Your task to perform on an android device: change alarm snooze length Image 0: 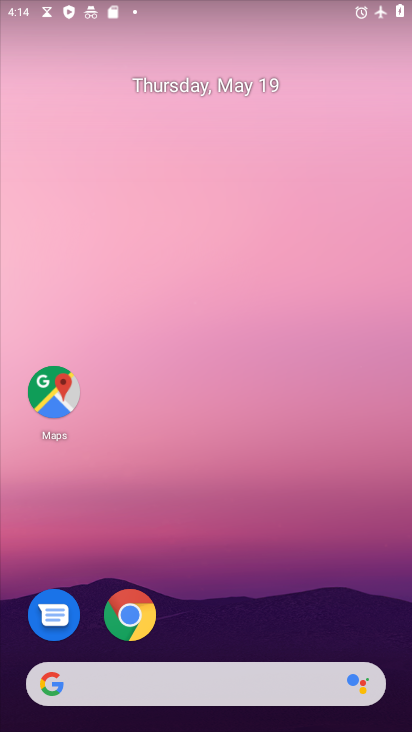
Step 0: drag from (263, 631) to (144, 84)
Your task to perform on an android device: change alarm snooze length Image 1: 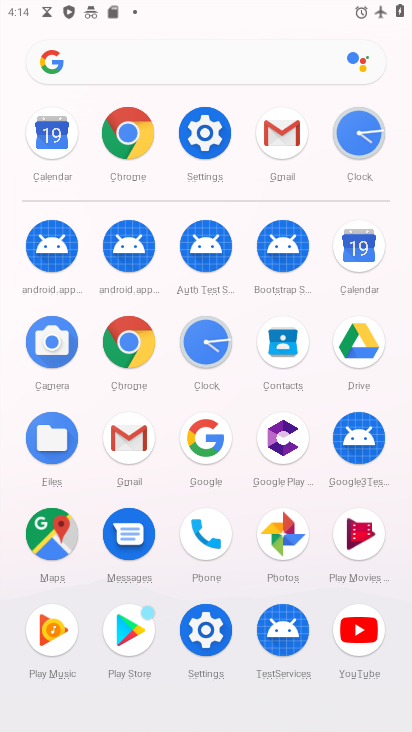
Step 1: click (214, 334)
Your task to perform on an android device: change alarm snooze length Image 2: 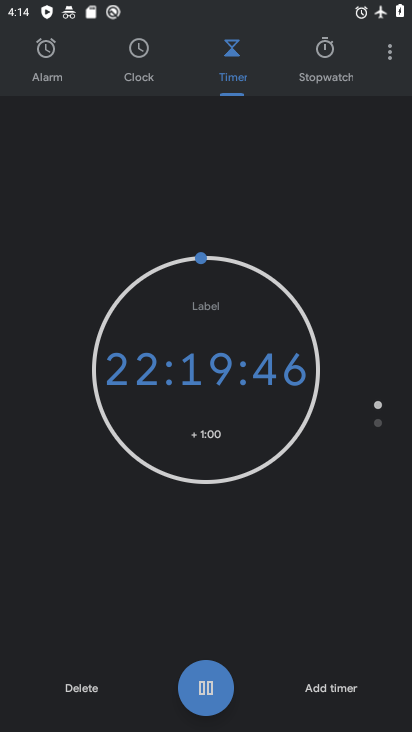
Step 2: click (194, 351)
Your task to perform on an android device: change alarm snooze length Image 3: 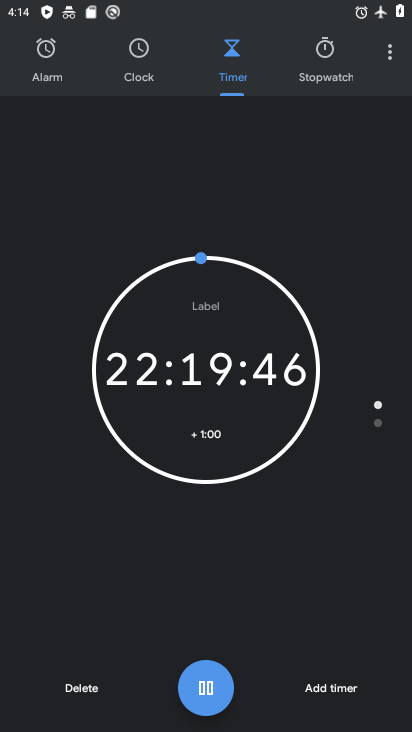
Step 3: click (196, 349)
Your task to perform on an android device: change alarm snooze length Image 4: 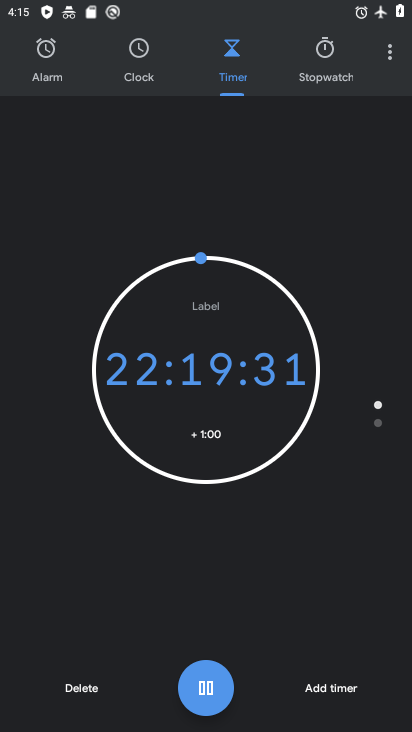
Step 4: click (200, 692)
Your task to perform on an android device: change alarm snooze length Image 5: 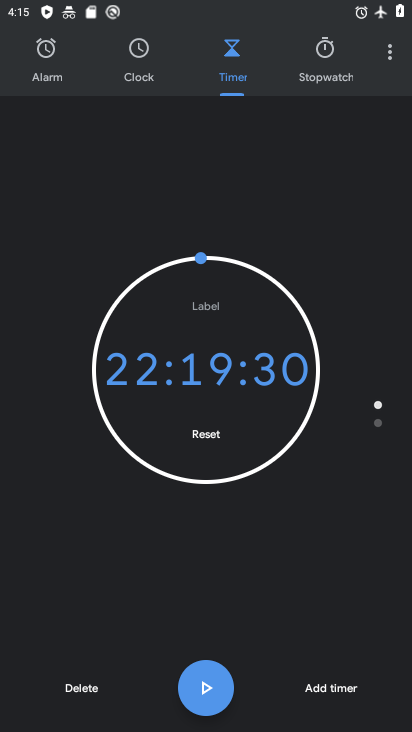
Step 5: click (206, 692)
Your task to perform on an android device: change alarm snooze length Image 6: 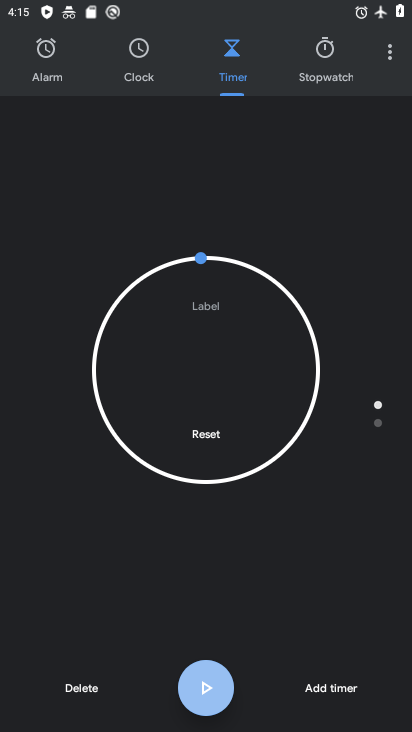
Step 6: click (211, 694)
Your task to perform on an android device: change alarm snooze length Image 7: 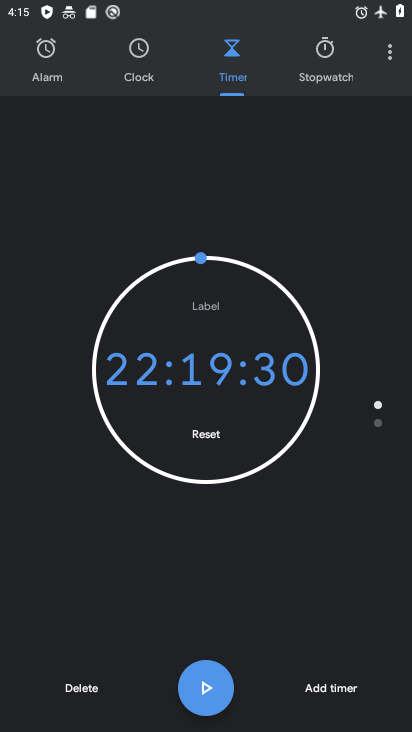
Step 7: click (383, 50)
Your task to perform on an android device: change alarm snooze length Image 8: 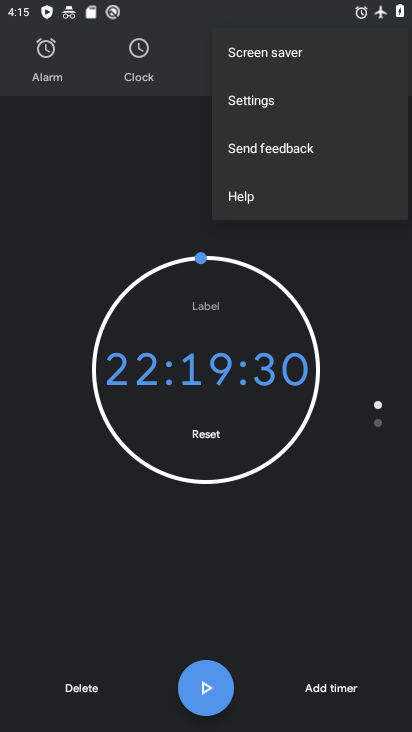
Step 8: click (248, 103)
Your task to perform on an android device: change alarm snooze length Image 9: 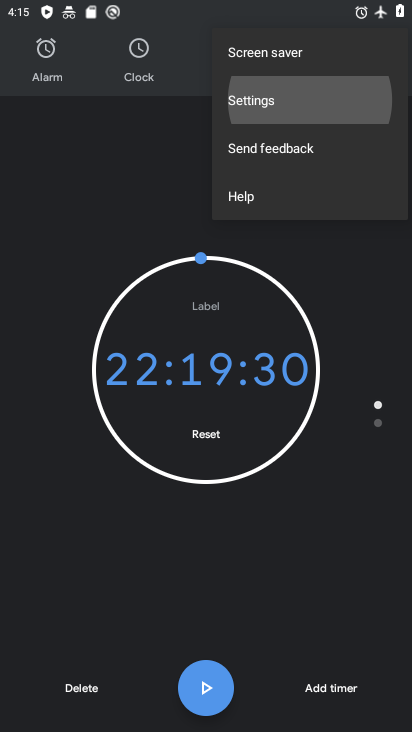
Step 9: click (248, 103)
Your task to perform on an android device: change alarm snooze length Image 10: 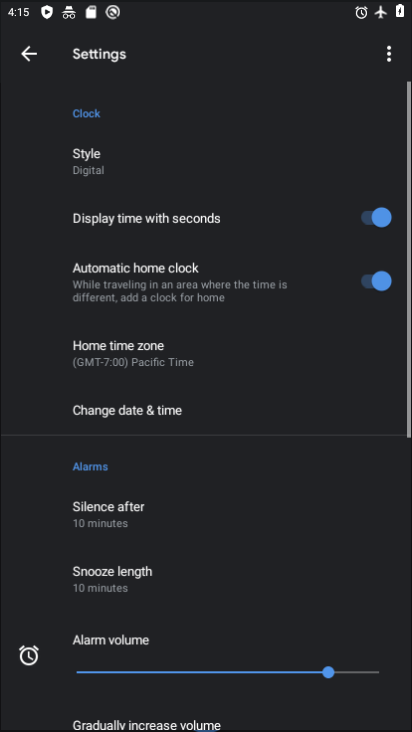
Step 10: click (248, 103)
Your task to perform on an android device: change alarm snooze length Image 11: 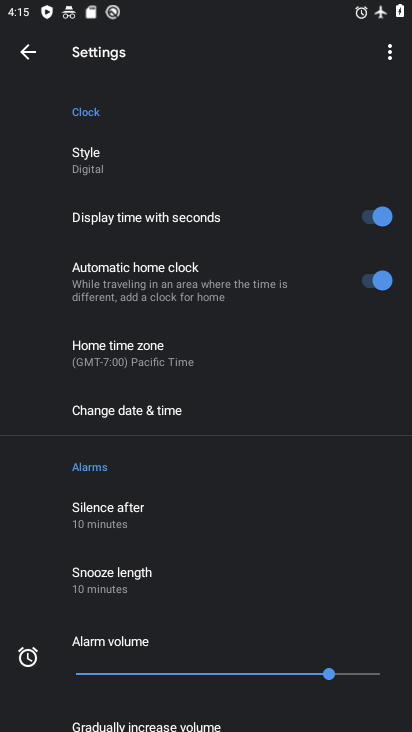
Step 11: click (107, 577)
Your task to perform on an android device: change alarm snooze length Image 12: 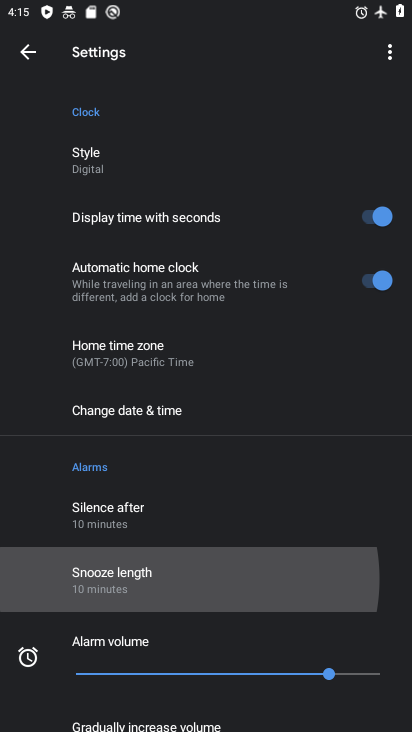
Step 12: click (110, 568)
Your task to perform on an android device: change alarm snooze length Image 13: 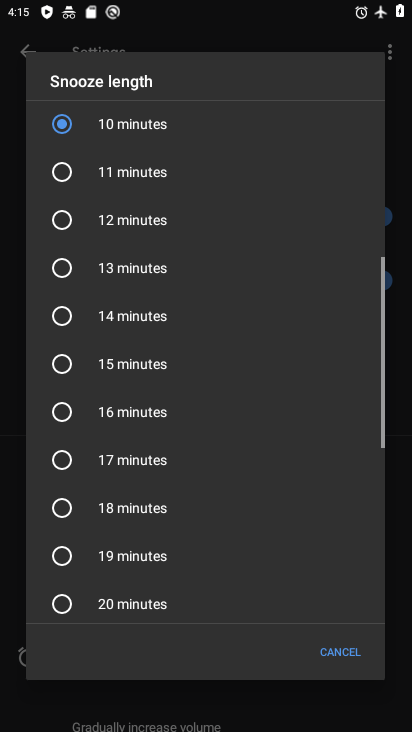
Step 13: click (110, 568)
Your task to perform on an android device: change alarm snooze length Image 14: 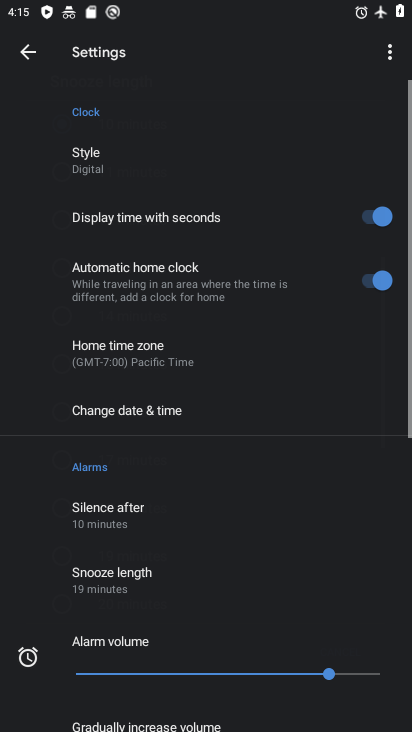
Step 14: click (110, 568)
Your task to perform on an android device: change alarm snooze length Image 15: 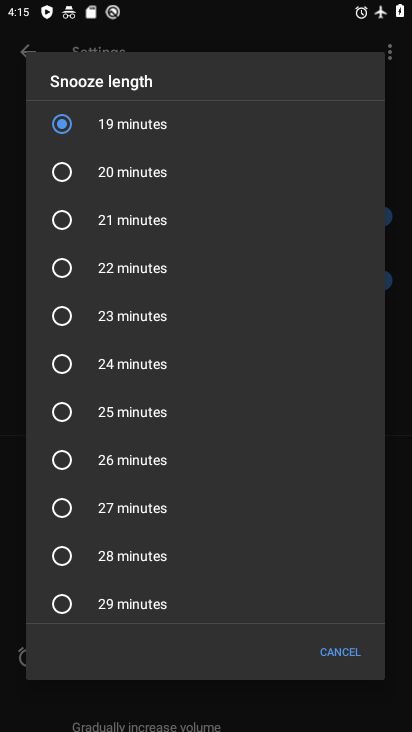
Step 15: click (64, 270)
Your task to perform on an android device: change alarm snooze length Image 16: 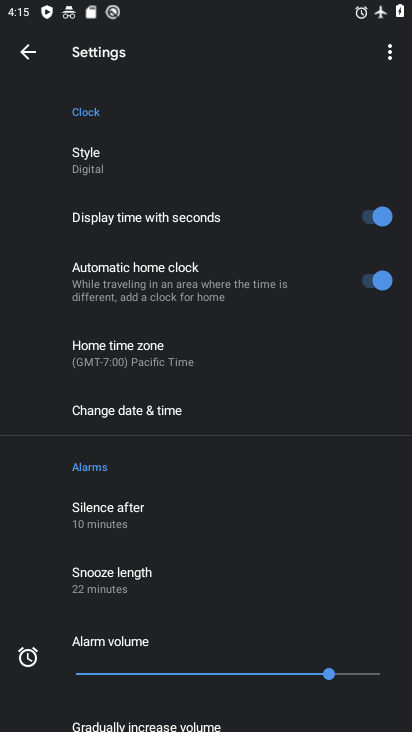
Step 16: press back button
Your task to perform on an android device: change alarm snooze length Image 17: 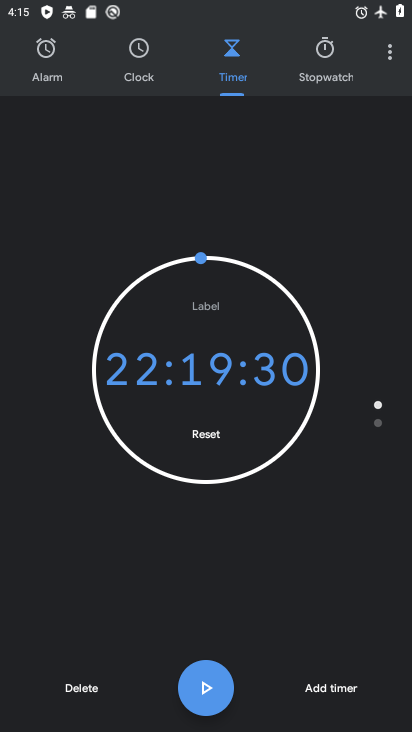
Step 17: click (389, 60)
Your task to perform on an android device: change alarm snooze length Image 18: 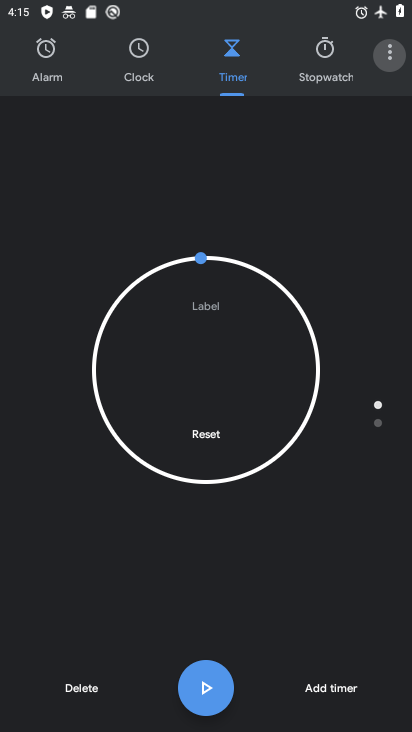
Step 18: click (394, 56)
Your task to perform on an android device: change alarm snooze length Image 19: 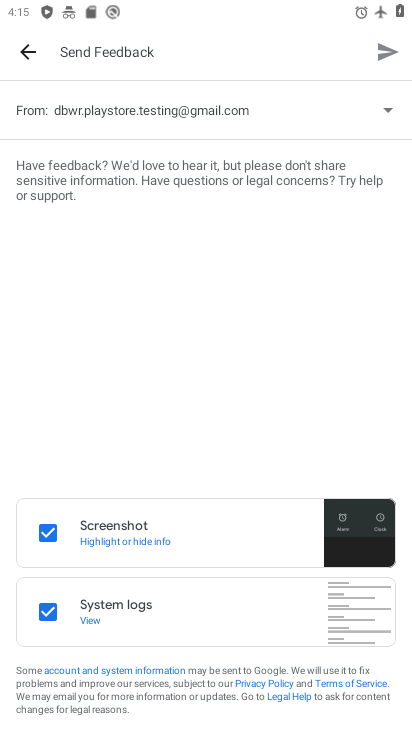
Step 19: click (26, 54)
Your task to perform on an android device: change alarm snooze length Image 20: 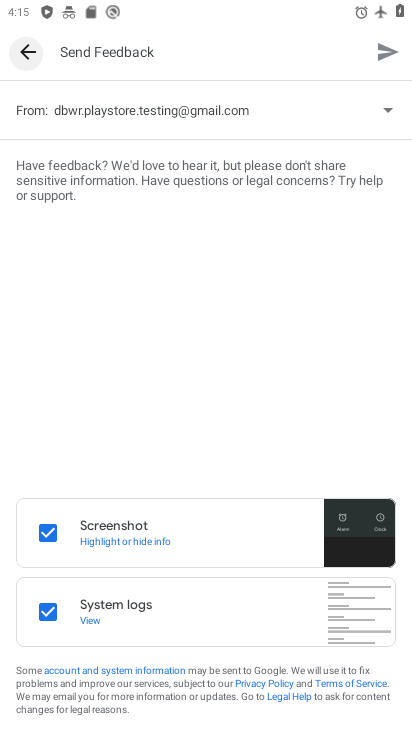
Step 20: click (26, 53)
Your task to perform on an android device: change alarm snooze length Image 21: 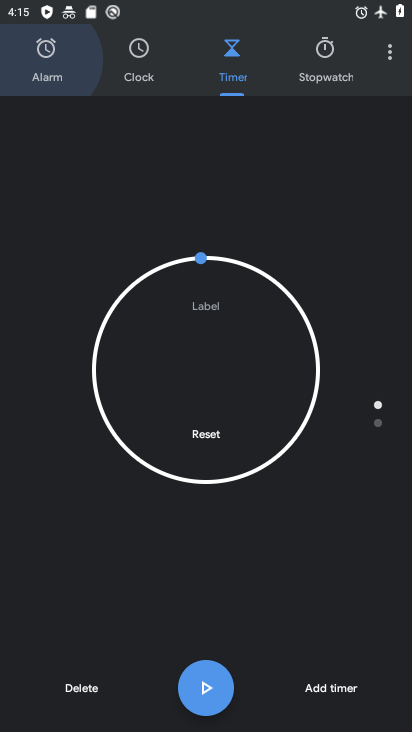
Step 21: click (26, 53)
Your task to perform on an android device: change alarm snooze length Image 22: 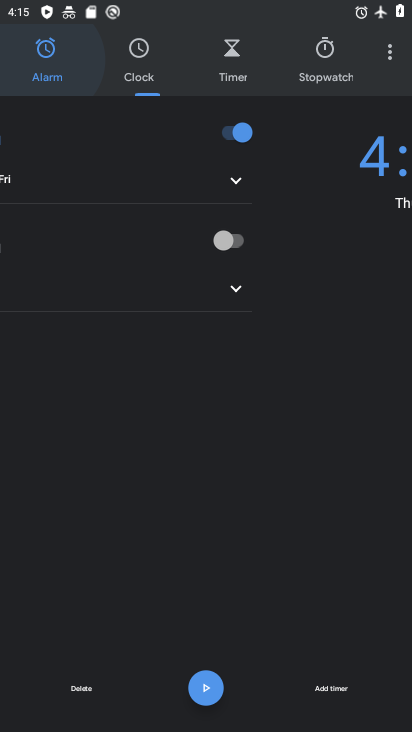
Step 22: click (26, 53)
Your task to perform on an android device: change alarm snooze length Image 23: 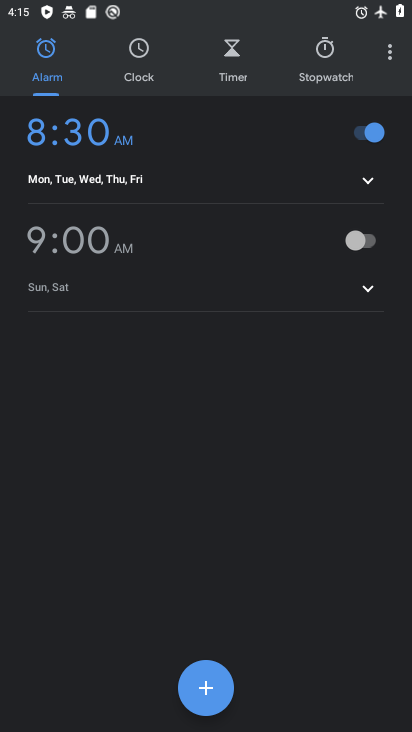
Step 23: click (384, 59)
Your task to perform on an android device: change alarm snooze length Image 24: 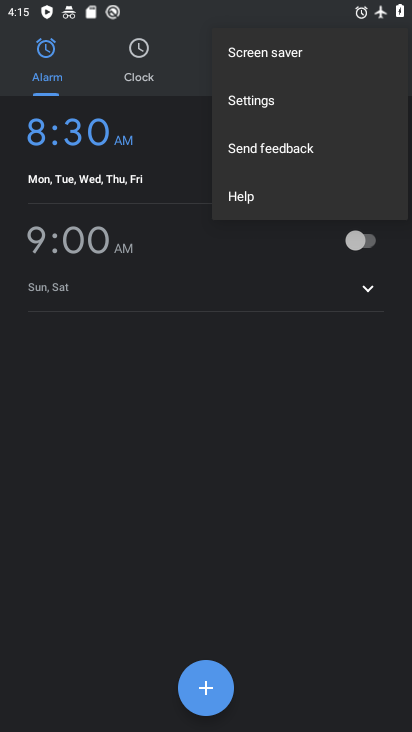
Step 24: click (244, 101)
Your task to perform on an android device: change alarm snooze length Image 25: 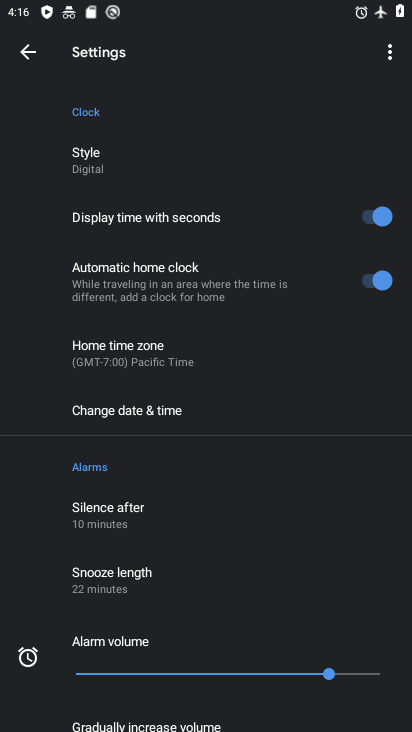
Step 25: click (114, 571)
Your task to perform on an android device: change alarm snooze length Image 26: 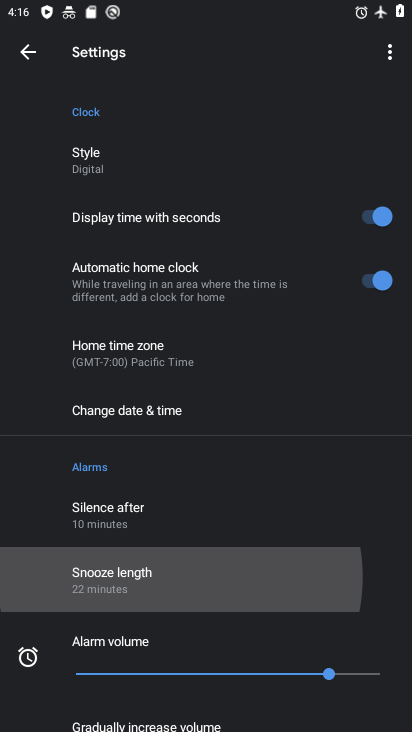
Step 26: click (114, 571)
Your task to perform on an android device: change alarm snooze length Image 27: 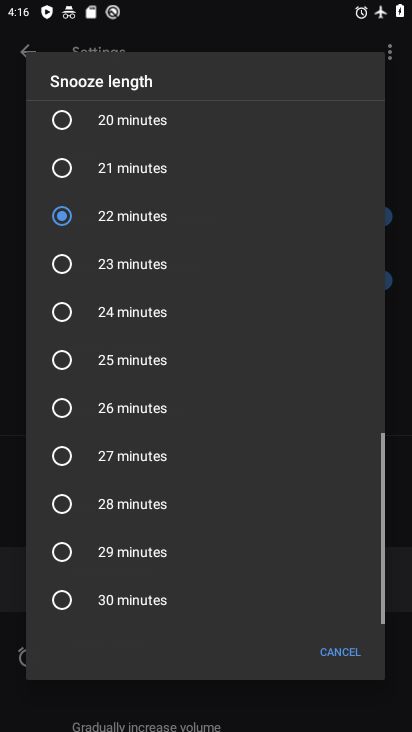
Step 27: click (113, 570)
Your task to perform on an android device: change alarm snooze length Image 28: 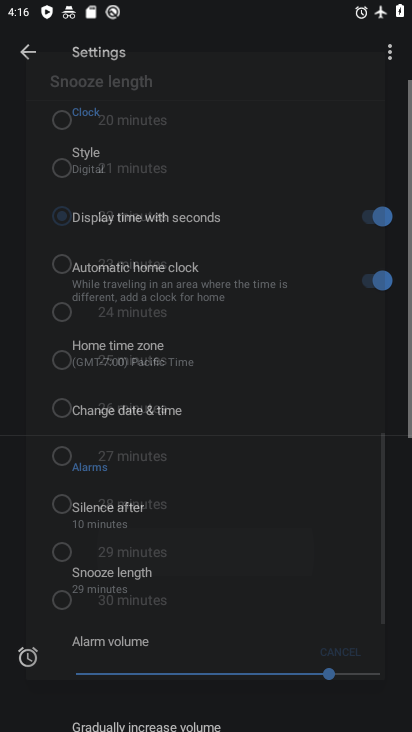
Step 28: click (113, 570)
Your task to perform on an android device: change alarm snooze length Image 29: 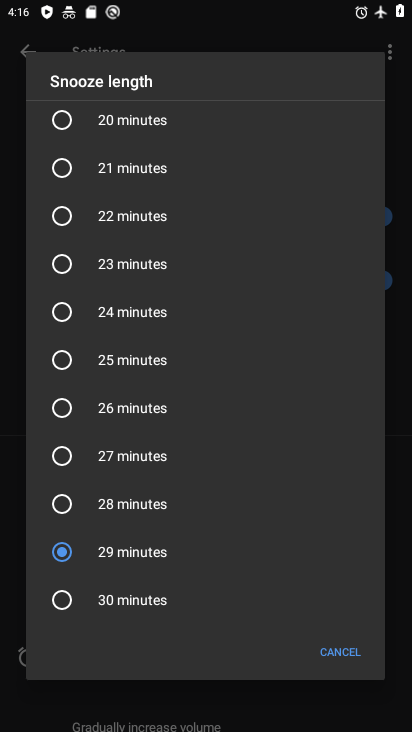
Step 29: click (63, 371)
Your task to perform on an android device: change alarm snooze length Image 30: 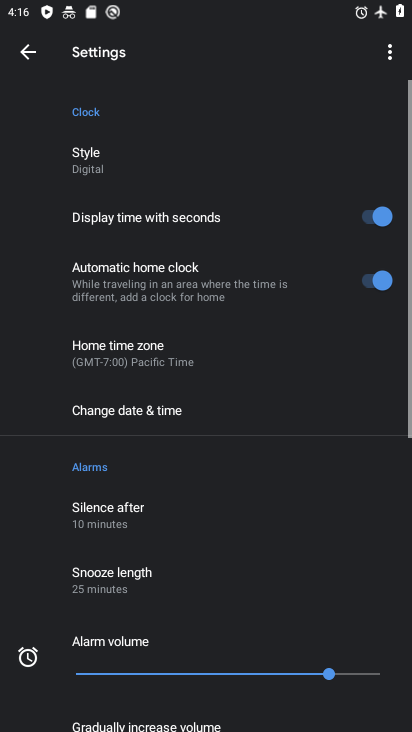
Step 30: click (64, 370)
Your task to perform on an android device: change alarm snooze length Image 31: 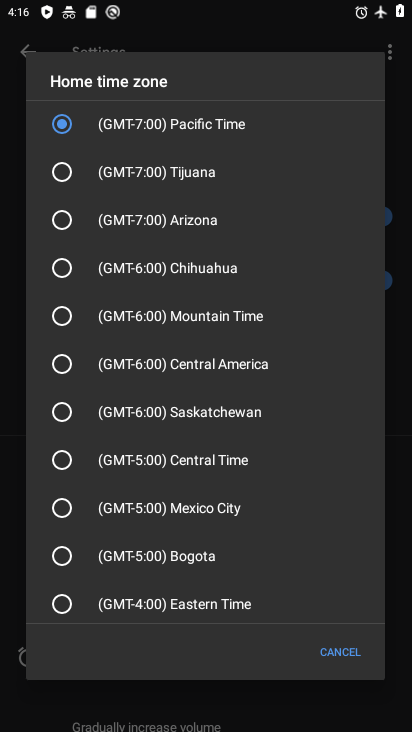
Step 31: click (339, 642)
Your task to perform on an android device: change alarm snooze length Image 32: 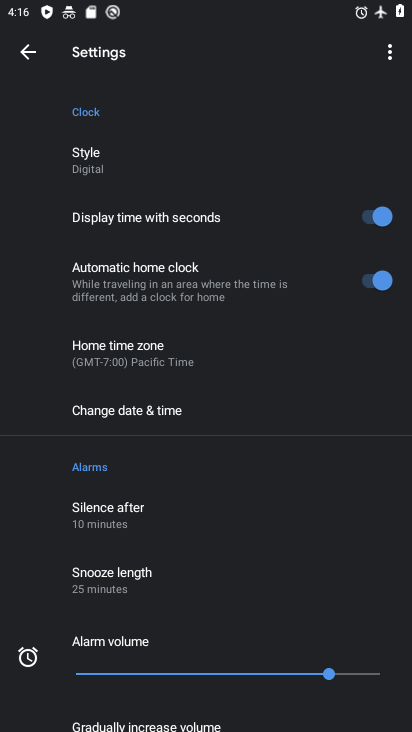
Step 32: drag from (152, 560) to (116, 124)
Your task to perform on an android device: change alarm snooze length Image 33: 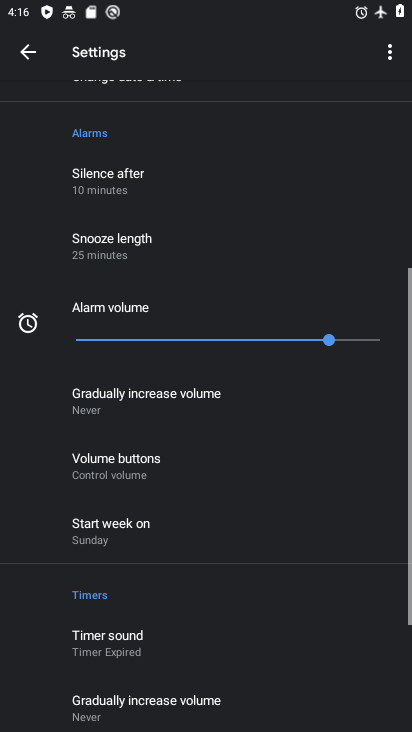
Step 33: drag from (169, 289) to (171, 123)
Your task to perform on an android device: change alarm snooze length Image 34: 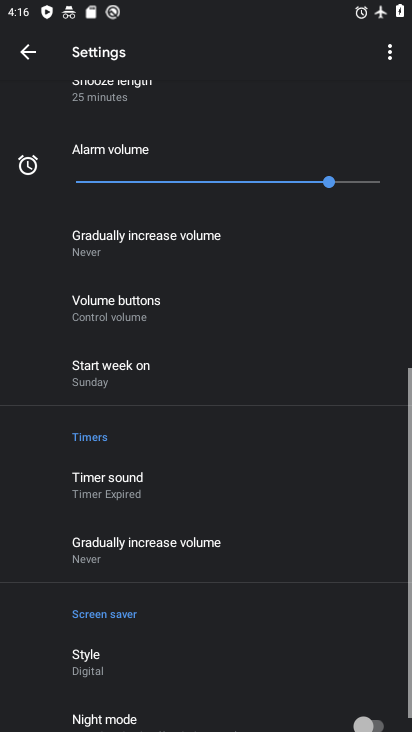
Step 34: drag from (199, 431) to (189, 52)
Your task to perform on an android device: change alarm snooze length Image 35: 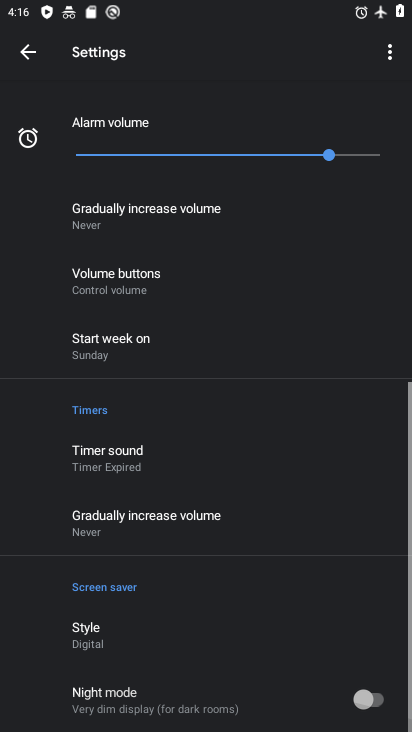
Step 35: drag from (214, 430) to (268, 80)
Your task to perform on an android device: change alarm snooze length Image 36: 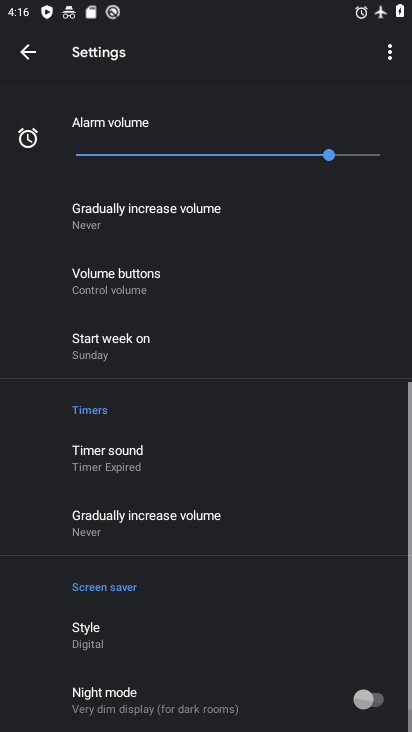
Step 36: drag from (265, 504) to (210, 32)
Your task to perform on an android device: change alarm snooze length Image 37: 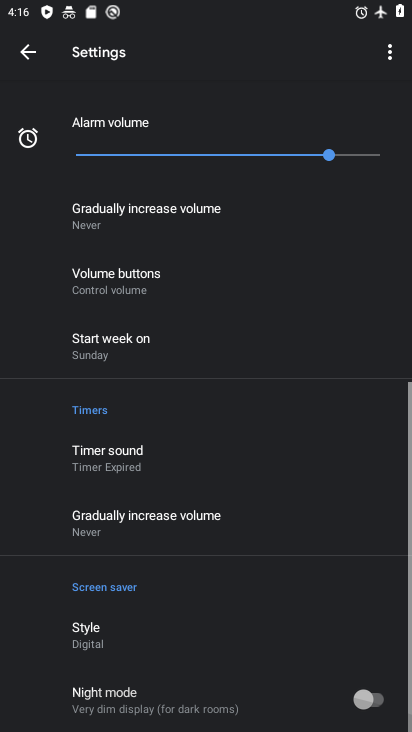
Step 37: drag from (138, 549) to (124, 13)
Your task to perform on an android device: change alarm snooze length Image 38: 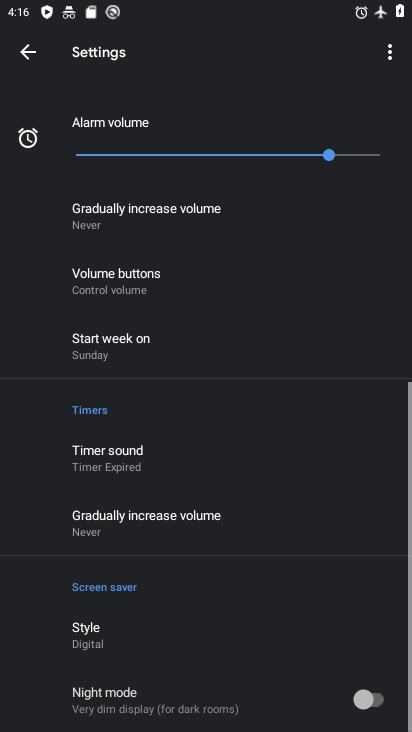
Step 38: drag from (111, 536) to (120, 7)
Your task to perform on an android device: change alarm snooze length Image 39: 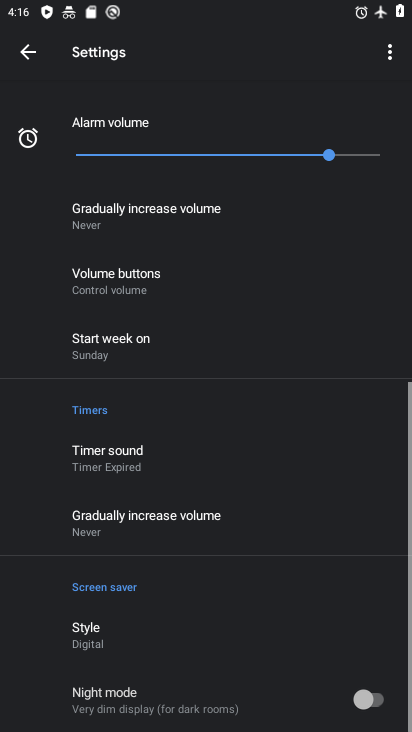
Step 39: drag from (137, 437) to (137, 15)
Your task to perform on an android device: change alarm snooze length Image 40: 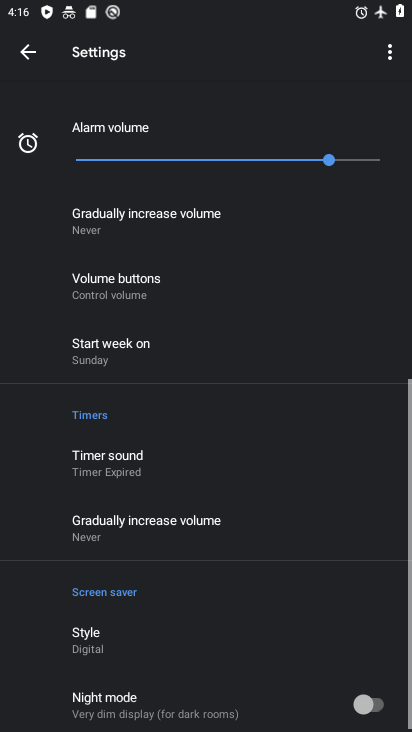
Step 40: drag from (176, 516) to (216, 190)
Your task to perform on an android device: change alarm snooze length Image 41: 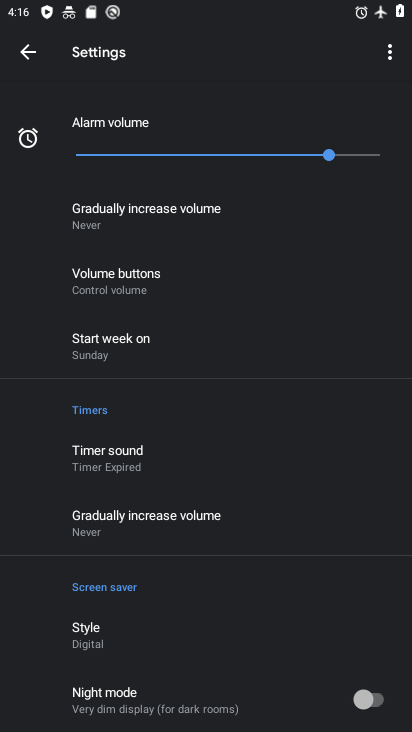
Step 41: click (244, 630)
Your task to perform on an android device: change alarm snooze length Image 42: 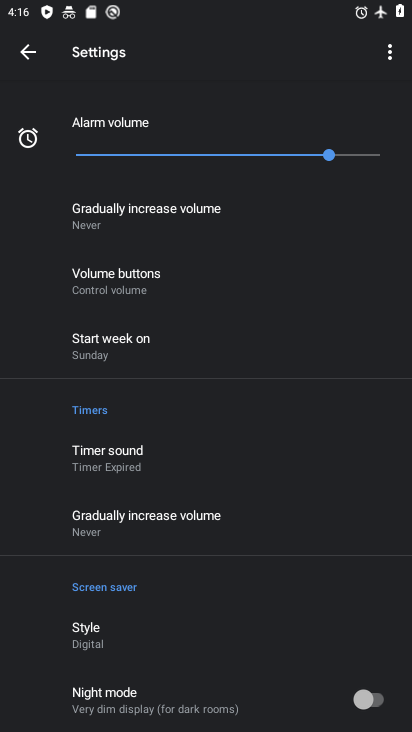
Step 42: task complete